Your task to perform on an android device: check storage Image 0: 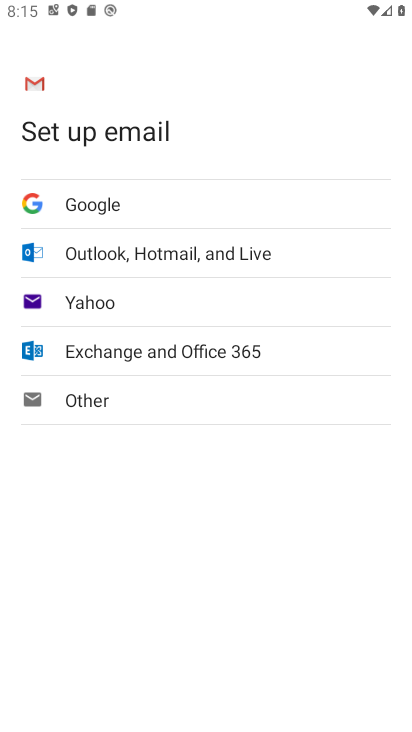
Step 0: press home button
Your task to perform on an android device: check storage Image 1: 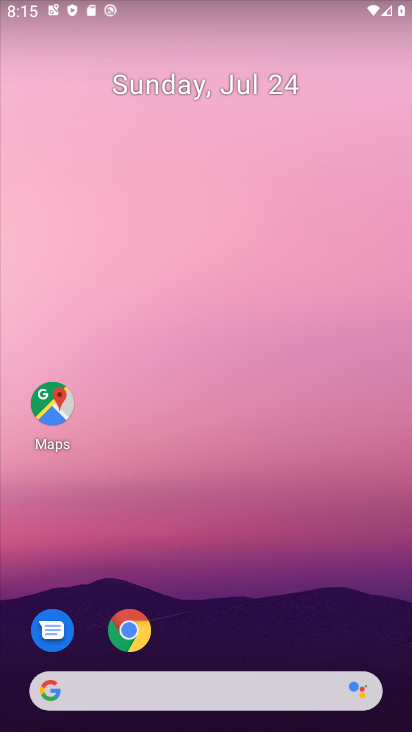
Step 1: drag from (209, 624) to (296, 121)
Your task to perform on an android device: check storage Image 2: 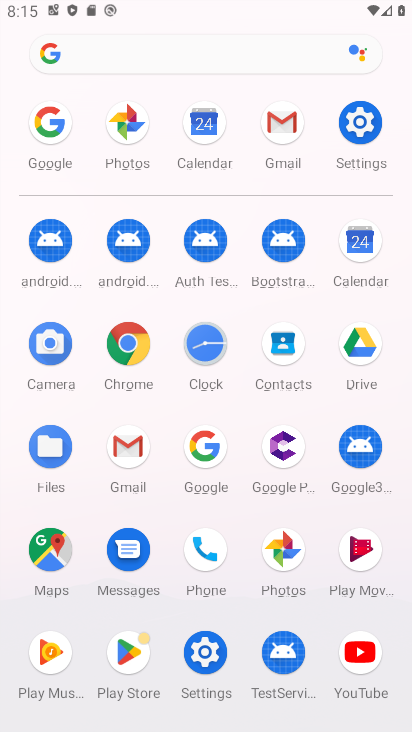
Step 2: click (343, 115)
Your task to perform on an android device: check storage Image 3: 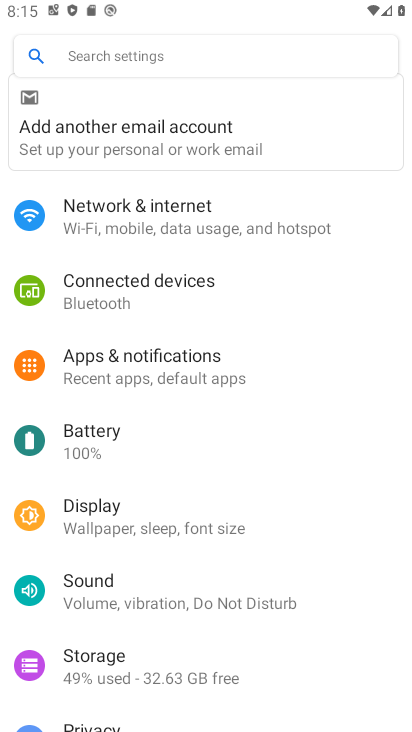
Step 3: drag from (153, 552) to (155, 99)
Your task to perform on an android device: check storage Image 4: 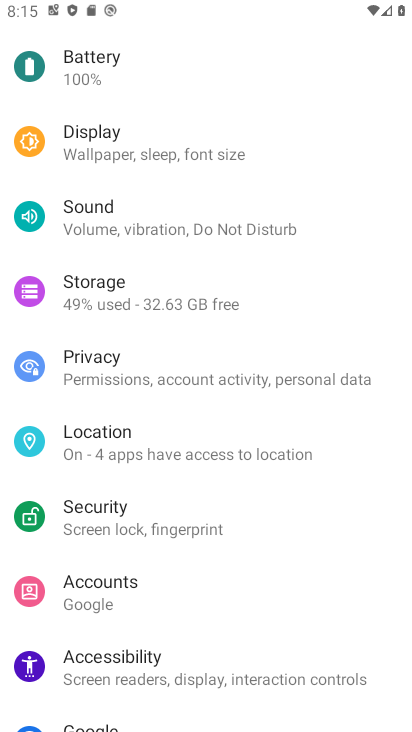
Step 4: click (137, 312)
Your task to perform on an android device: check storage Image 5: 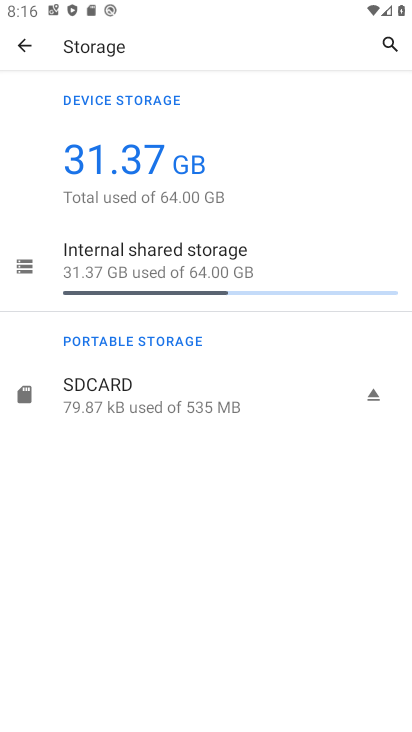
Step 5: task complete